Your task to perform on an android device: toggle improve location accuracy Image 0: 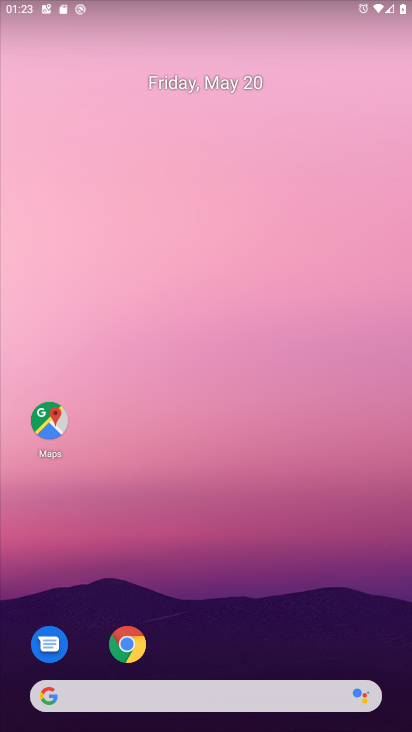
Step 0: drag from (218, 493) to (257, 108)
Your task to perform on an android device: toggle improve location accuracy Image 1: 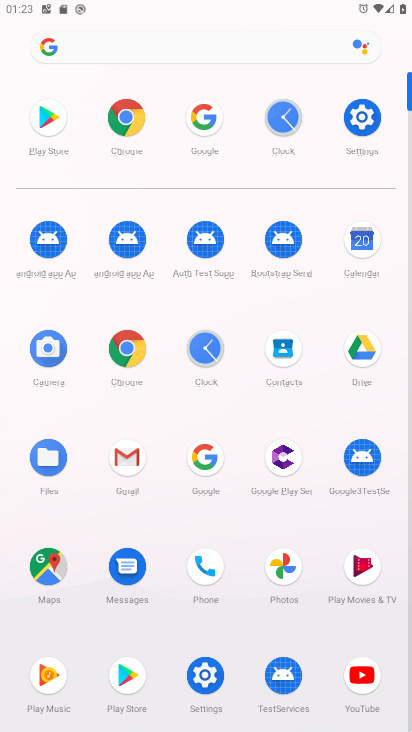
Step 1: click (366, 120)
Your task to perform on an android device: toggle improve location accuracy Image 2: 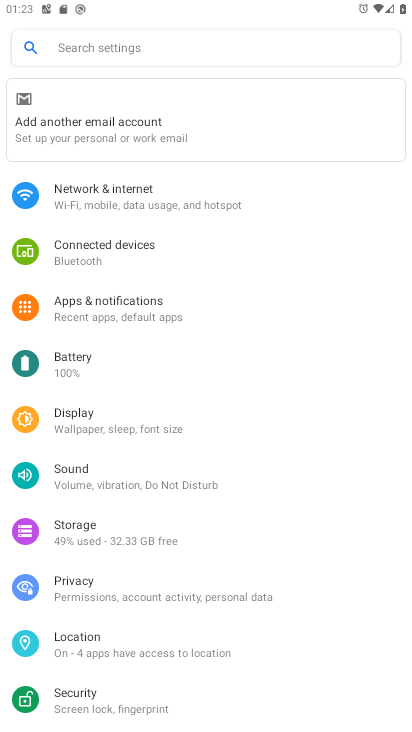
Step 2: click (92, 647)
Your task to perform on an android device: toggle improve location accuracy Image 3: 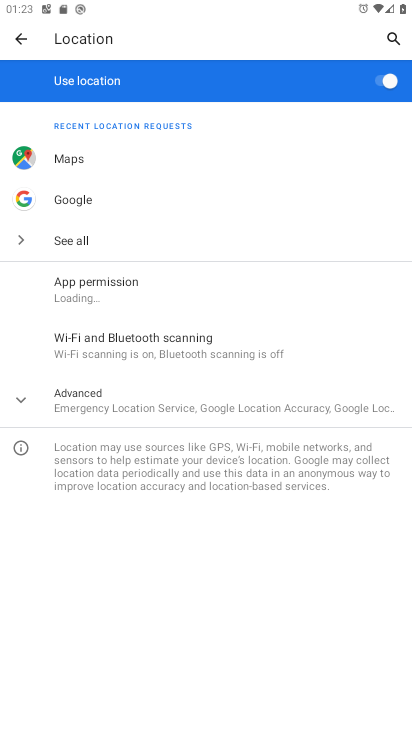
Step 3: click (109, 402)
Your task to perform on an android device: toggle improve location accuracy Image 4: 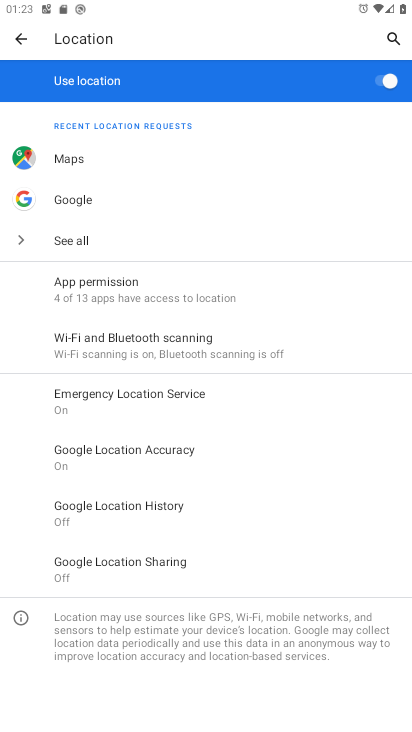
Step 4: click (111, 437)
Your task to perform on an android device: toggle improve location accuracy Image 5: 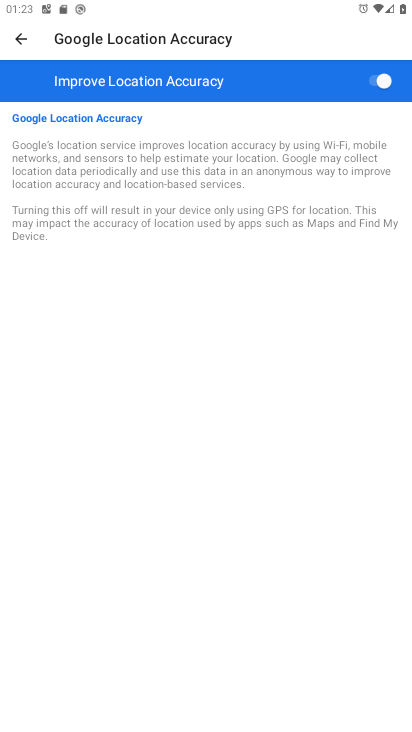
Step 5: click (367, 83)
Your task to perform on an android device: toggle improve location accuracy Image 6: 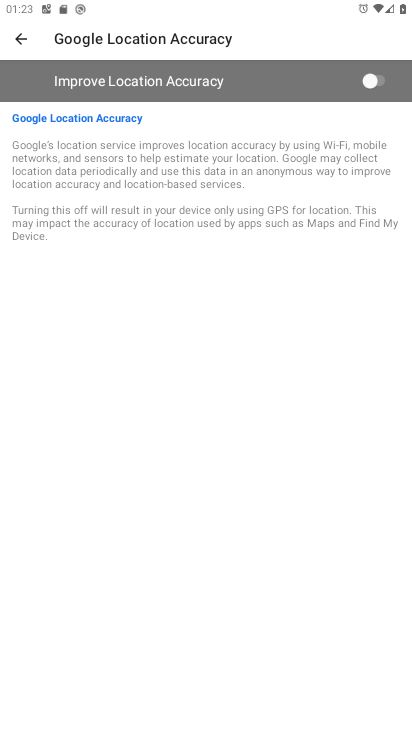
Step 6: task complete